Your task to perform on an android device: Open Yahoo.com Image 0: 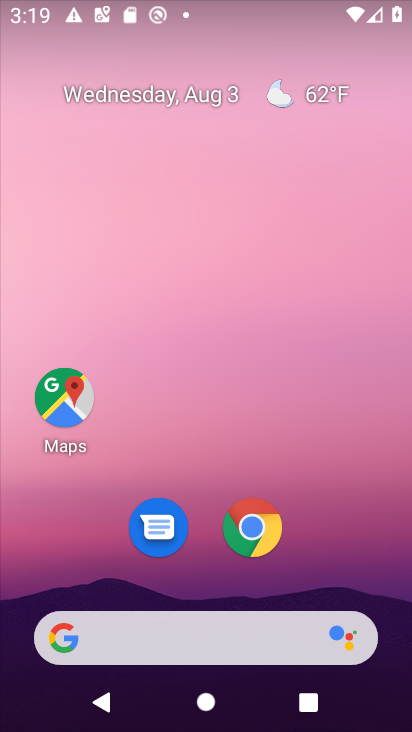
Step 0: drag from (340, 530) to (247, 95)
Your task to perform on an android device: Open Yahoo.com Image 1: 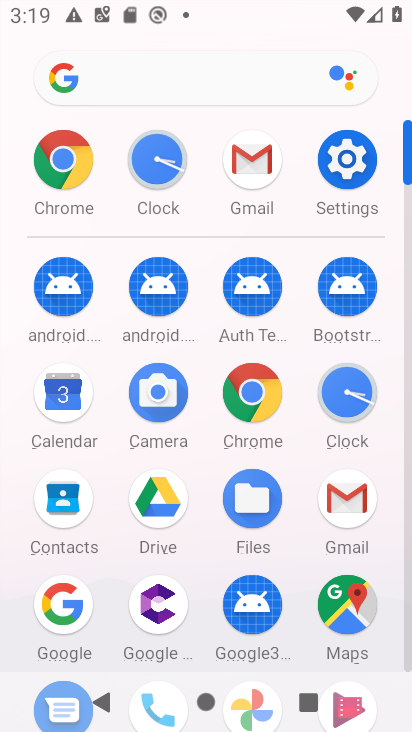
Step 1: click (254, 391)
Your task to perform on an android device: Open Yahoo.com Image 2: 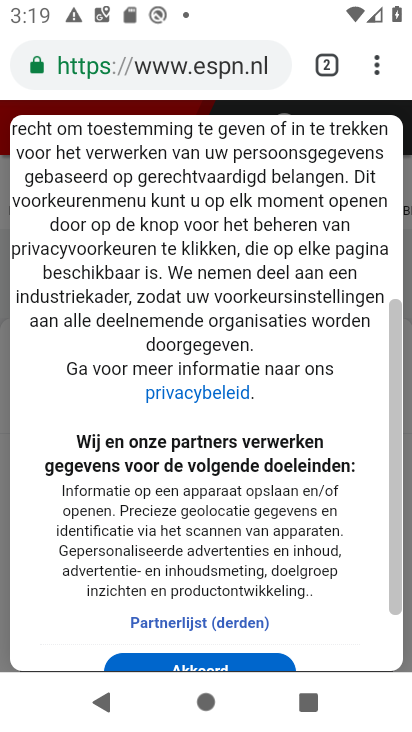
Step 2: click (226, 61)
Your task to perform on an android device: Open Yahoo.com Image 3: 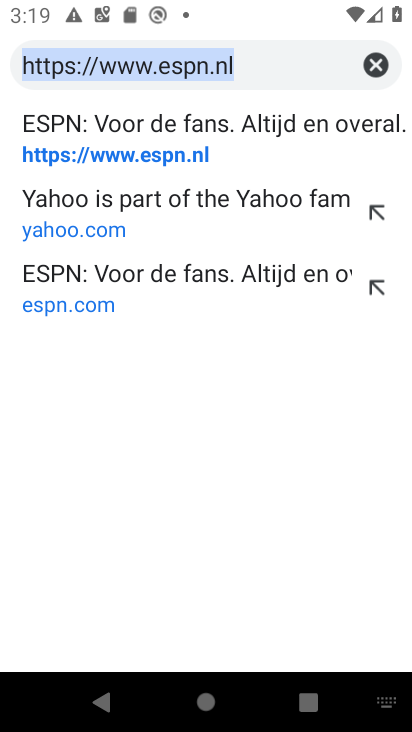
Step 3: click (57, 227)
Your task to perform on an android device: Open Yahoo.com Image 4: 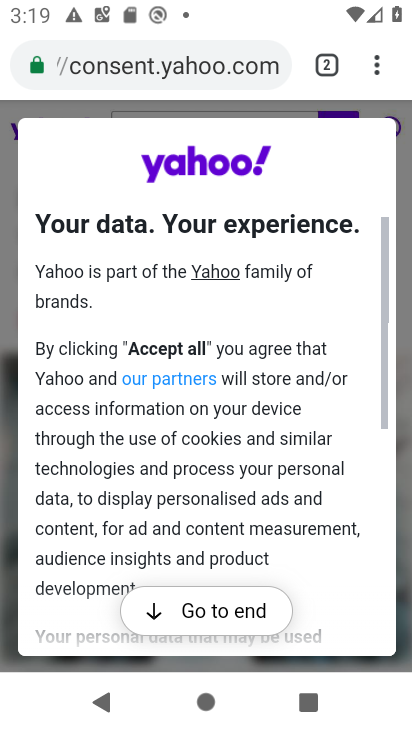
Step 4: task complete